Your task to perform on an android device: change the clock display to show seconds Image 0: 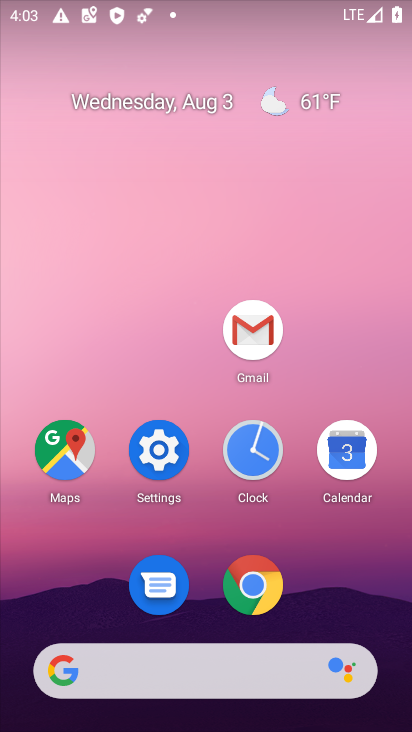
Step 0: click (243, 455)
Your task to perform on an android device: change the clock display to show seconds Image 1: 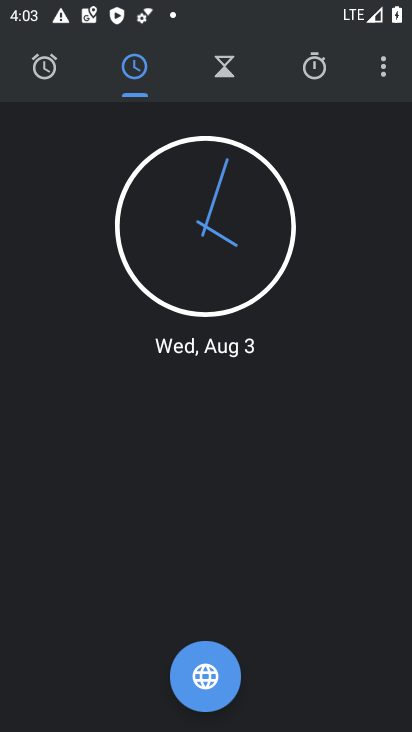
Step 1: click (384, 67)
Your task to perform on an android device: change the clock display to show seconds Image 2: 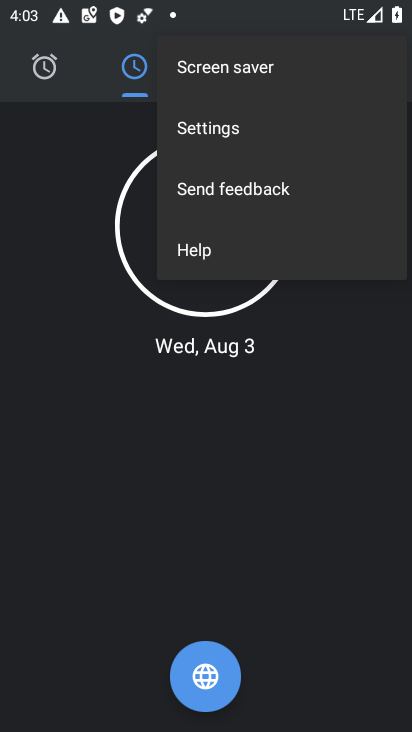
Step 2: click (247, 134)
Your task to perform on an android device: change the clock display to show seconds Image 3: 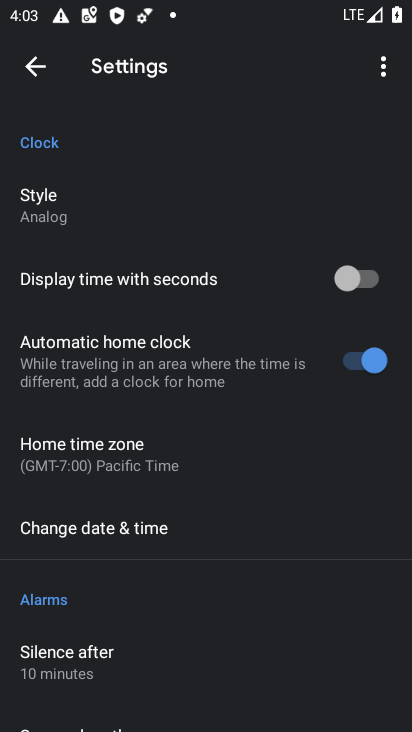
Step 3: click (370, 279)
Your task to perform on an android device: change the clock display to show seconds Image 4: 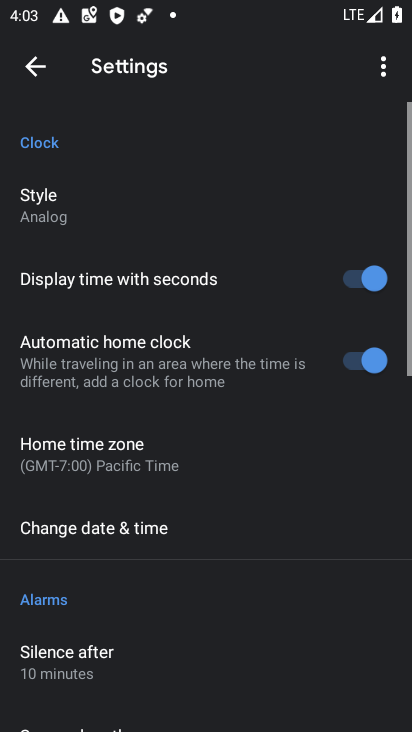
Step 4: task complete